Your task to perform on an android device: see tabs open on other devices in the chrome app Image 0: 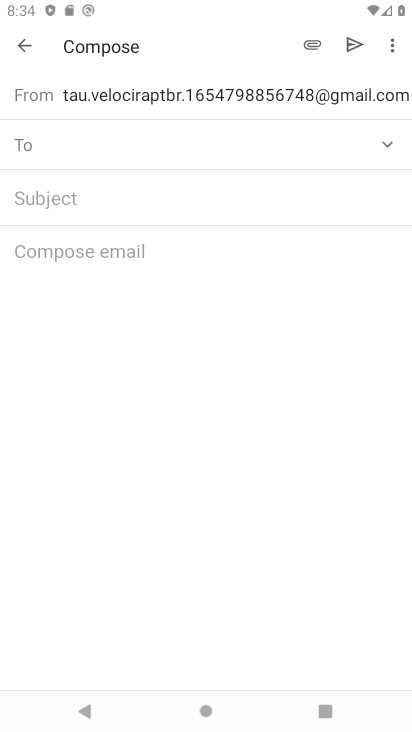
Step 0: drag from (217, 640) to (248, 2)
Your task to perform on an android device: see tabs open on other devices in the chrome app Image 1: 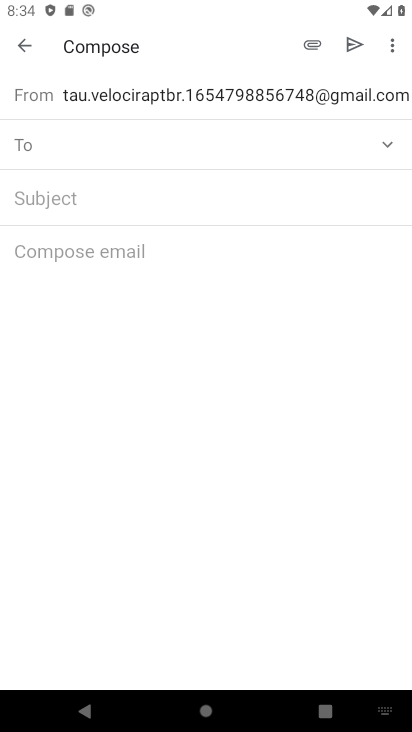
Step 1: press home button
Your task to perform on an android device: see tabs open on other devices in the chrome app Image 2: 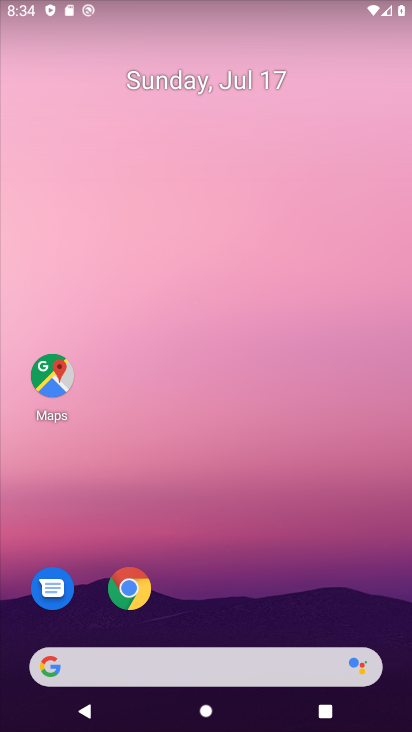
Step 2: drag from (199, 616) to (341, 494)
Your task to perform on an android device: see tabs open on other devices in the chrome app Image 3: 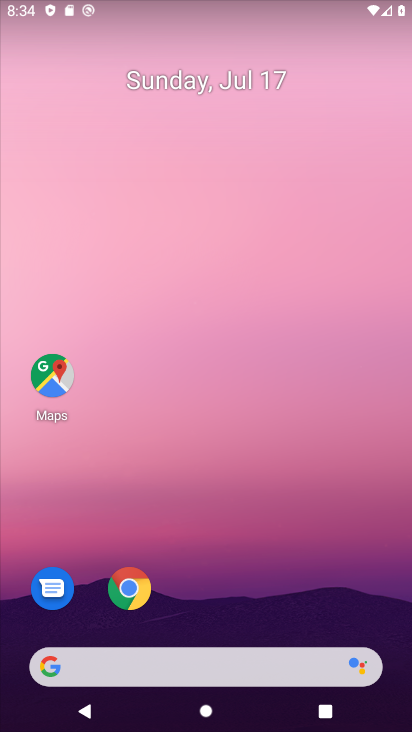
Step 3: drag from (187, 646) to (168, 73)
Your task to perform on an android device: see tabs open on other devices in the chrome app Image 4: 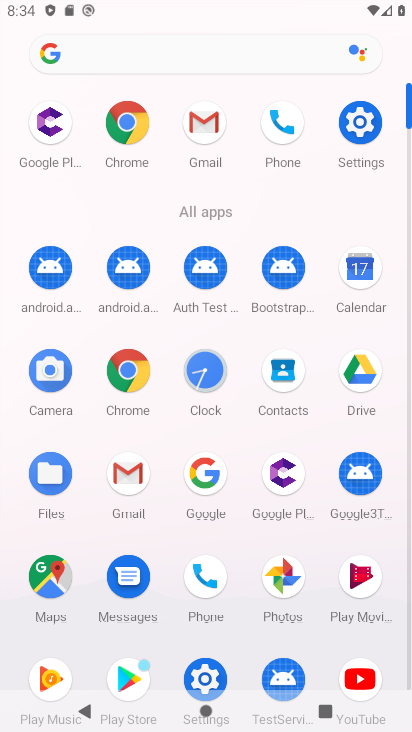
Step 4: click (129, 369)
Your task to perform on an android device: see tabs open on other devices in the chrome app Image 5: 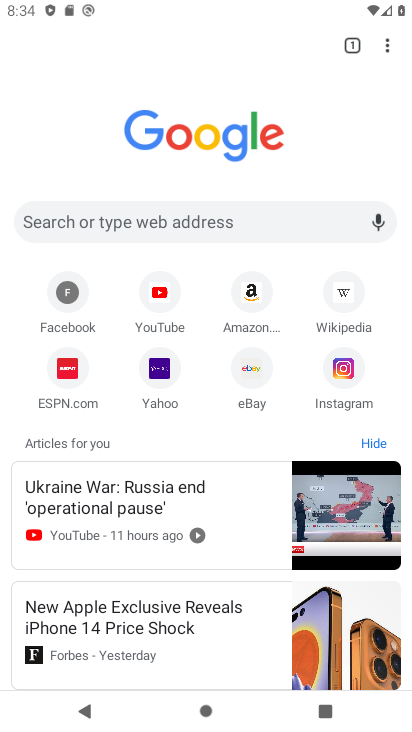
Step 5: click (393, 48)
Your task to perform on an android device: see tabs open on other devices in the chrome app Image 6: 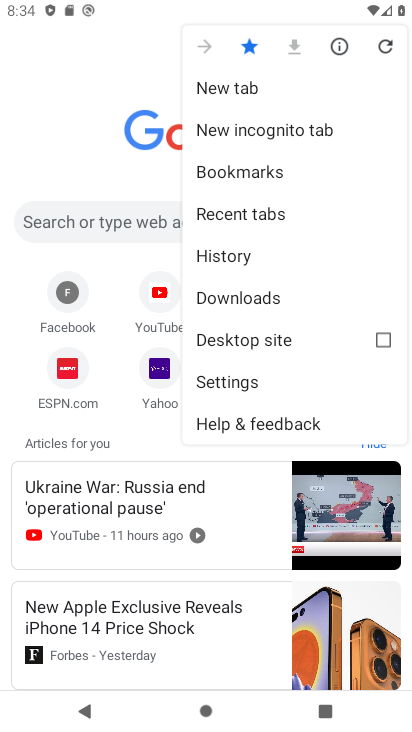
Step 6: click (244, 256)
Your task to perform on an android device: see tabs open on other devices in the chrome app Image 7: 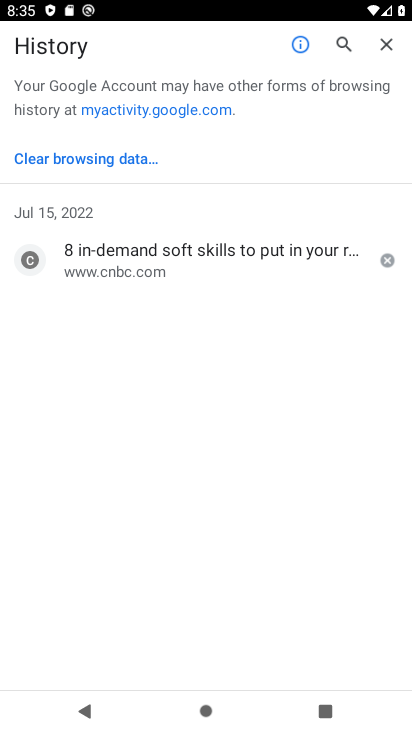
Step 7: task complete